Your task to perform on an android device: see tabs open on other devices in the chrome app Image 0: 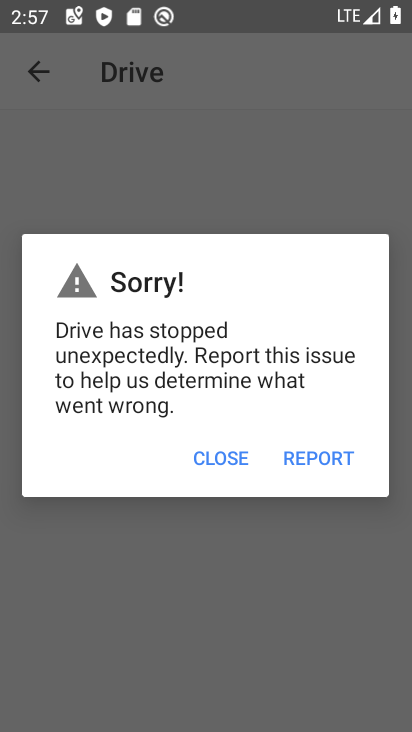
Step 0: press home button
Your task to perform on an android device: see tabs open on other devices in the chrome app Image 1: 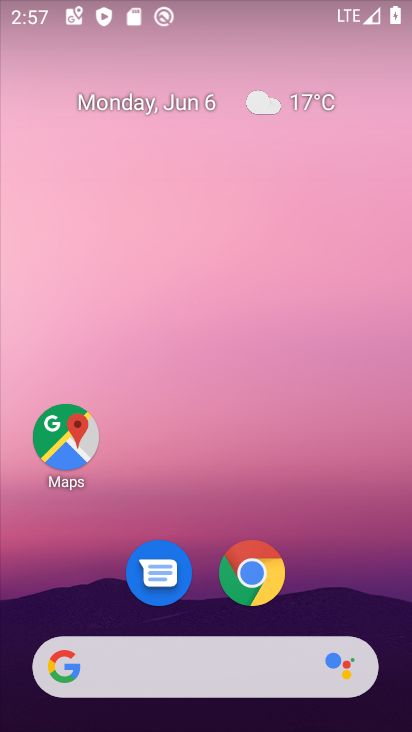
Step 1: drag from (381, 594) to (359, 161)
Your task to perform on an android device: see tabs open on other devices in the chrome app Image 2: 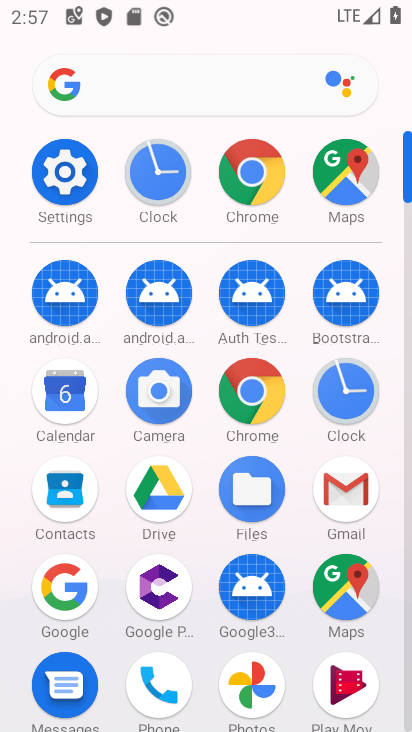
Step 2: click (251, 400)
Your task to perform on an android device: see tabs open on other devices in the chrome app Image 3: 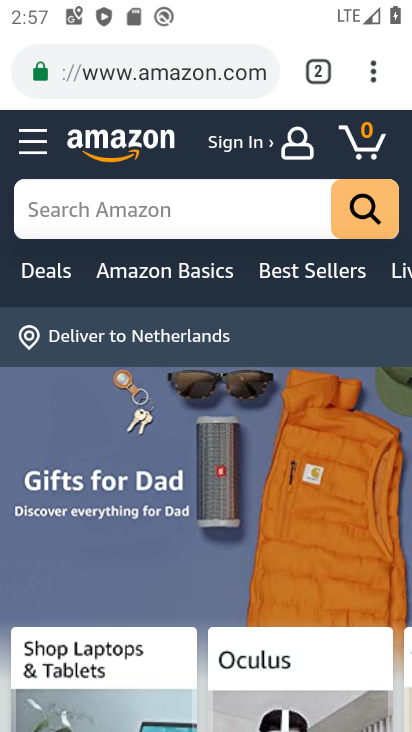
Step 3: click (374, 77)
Your task to perform on an android device: see tabs open on other devices in the chrome app Image 4: 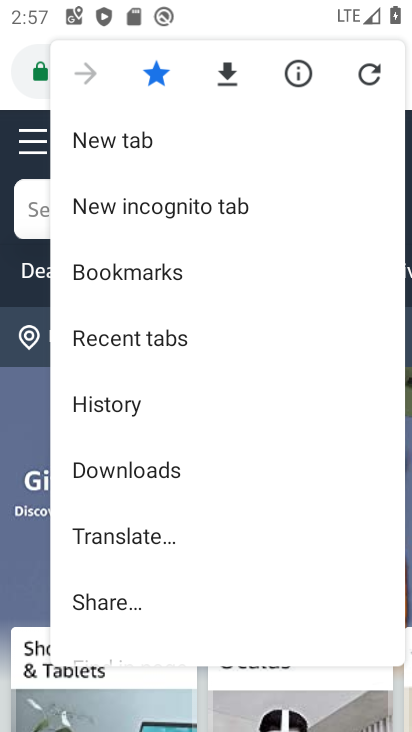
Step 4: drag from (255, 426) to (253, 227)
Your task to perform on an android device: see tabs open on other devices in the chrome app Image 5: 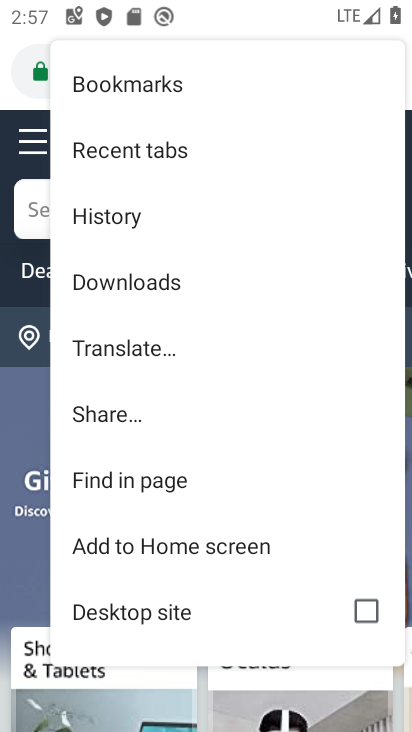
Step 5: click (185, 157)
Your task to perform on an android device: see tabs open on other devices in the chrome app Image 6: 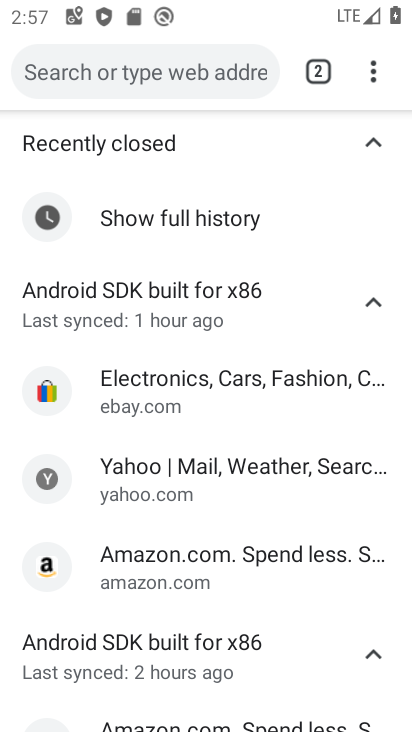
Step 6: click (318, 72)
Your task to perform on an android device: see tabs open on other devices in the chrome app Image 7: 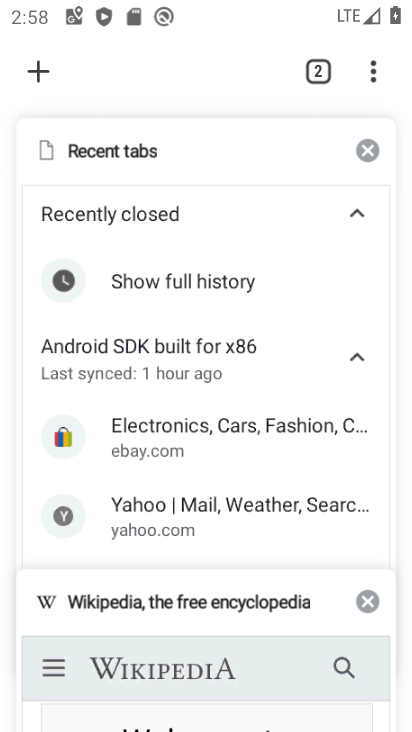
Step 7: task complete